Your task to perform on an android device: Open Amazon Image 0: 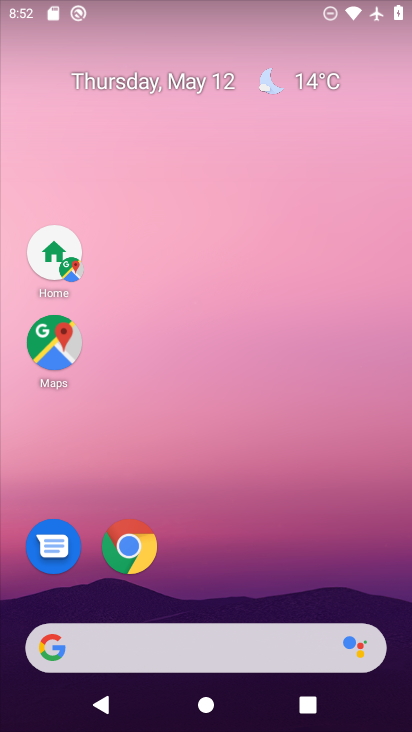
Step 0: click (138, 543)
Your task to perform on an android device: Open Amazon Image 1: 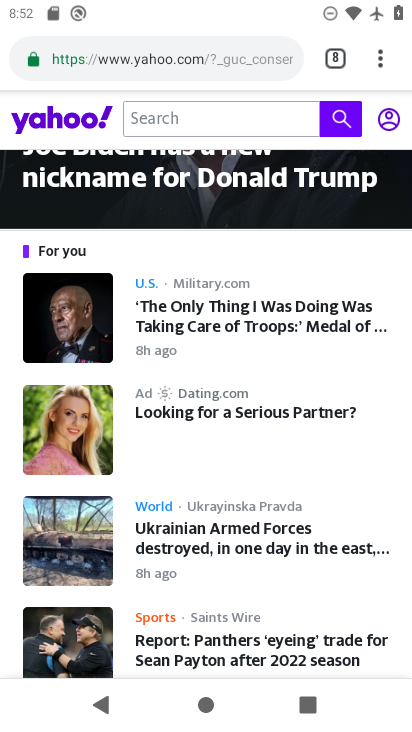
Step 1: drag from (378, 61) to (260, 119)
Your task to perform on an android device: Open Amazon Image 2: 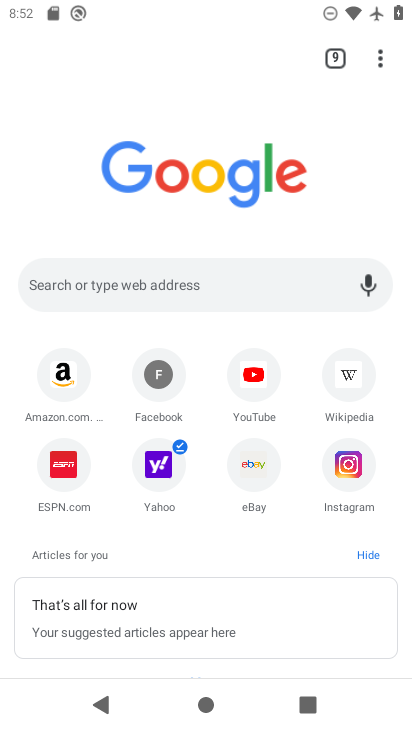
Step 2: click (67, 379)
Your task to perform on an android device: Open Amazon Image 3: 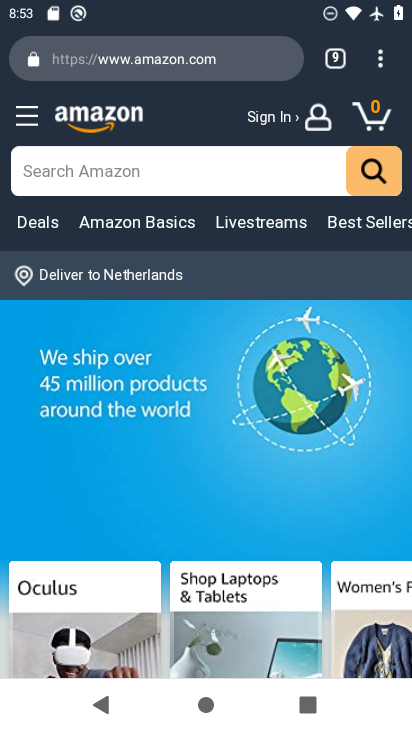
Step 3: task complete